Your task to perform on an android device: Open Maps and search for coffee Image 0: 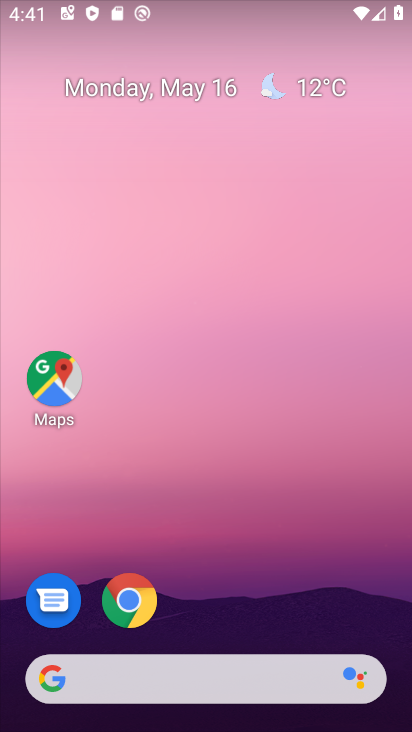
Step 0: click (46, 376)
Your task to perform on an android device: Open Maps and search for coffee Image 1: 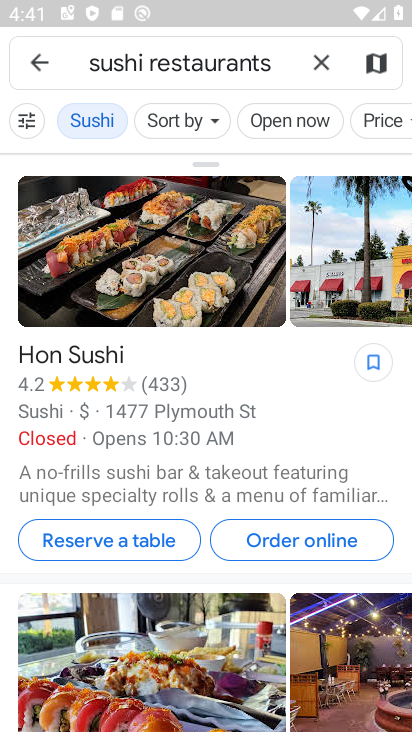
Step 1: click (323, 64)
Your task to perform on an android device: Open Maps and search for coffee Image 2: 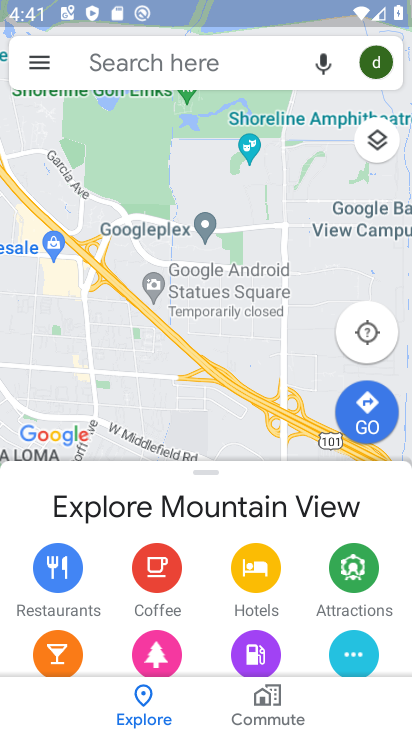
Step 2: task complete